Your task to perform on an android device: turn off sleep mode Image 0: 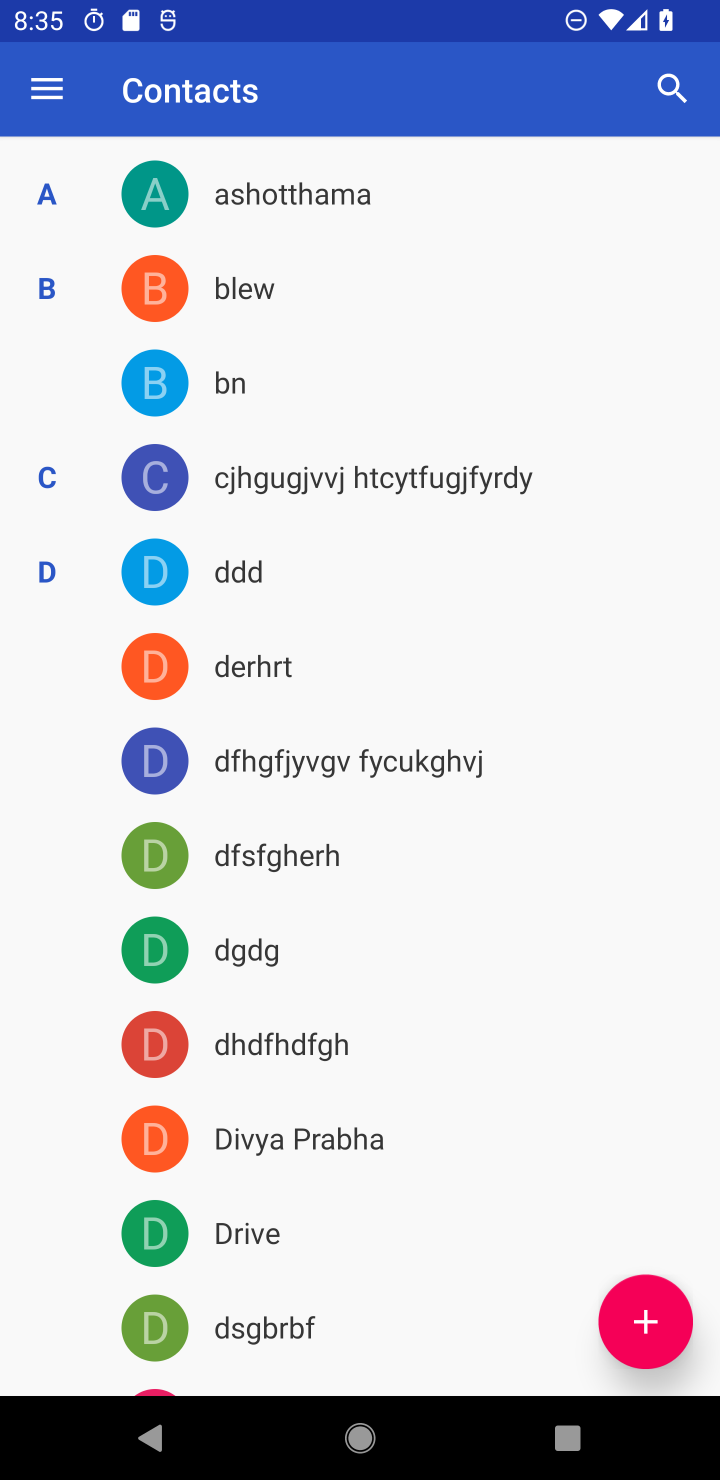
Step 0: press home button
Your task to perform on an android device: turn off sleep mode Image 1: 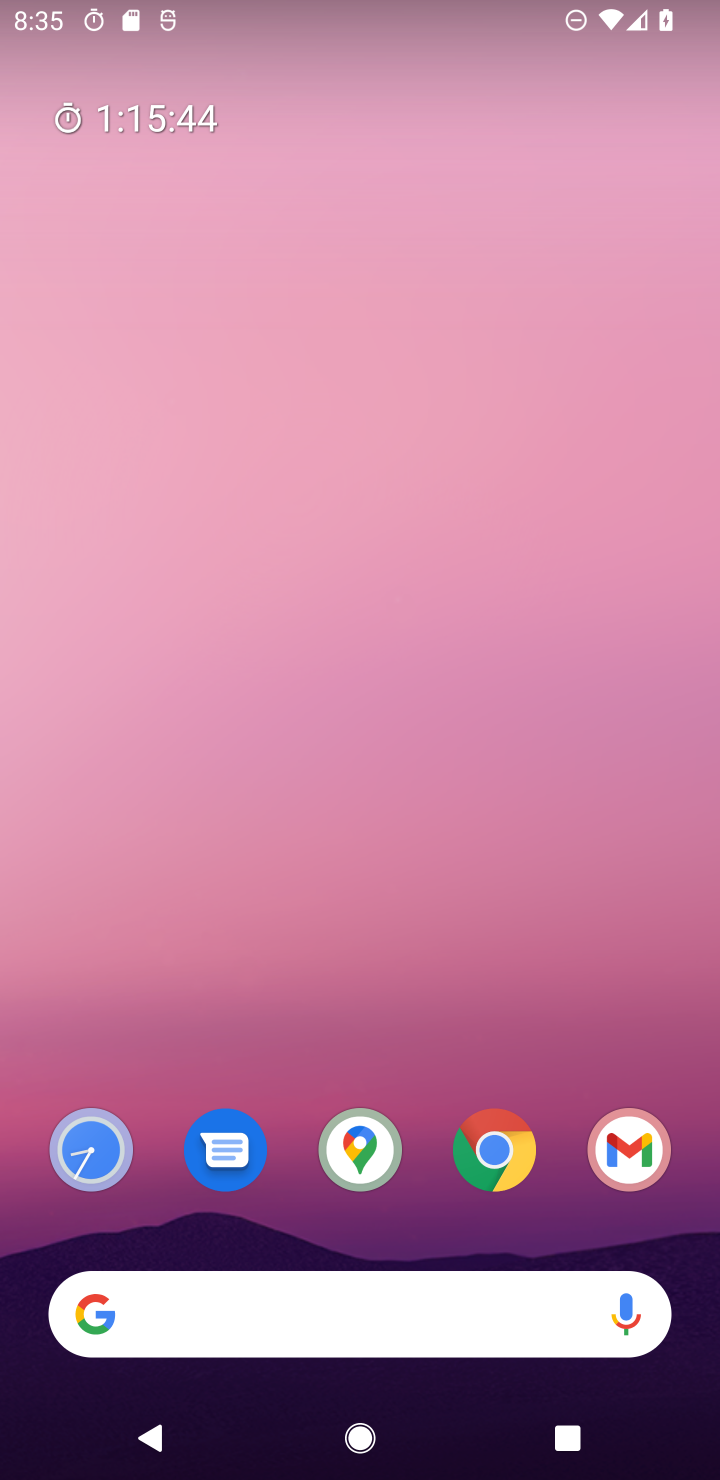
Step 1: drag from (374, 541) to (406, 20)
Your task to perform on an android device: turn off sleep mode Image 2: 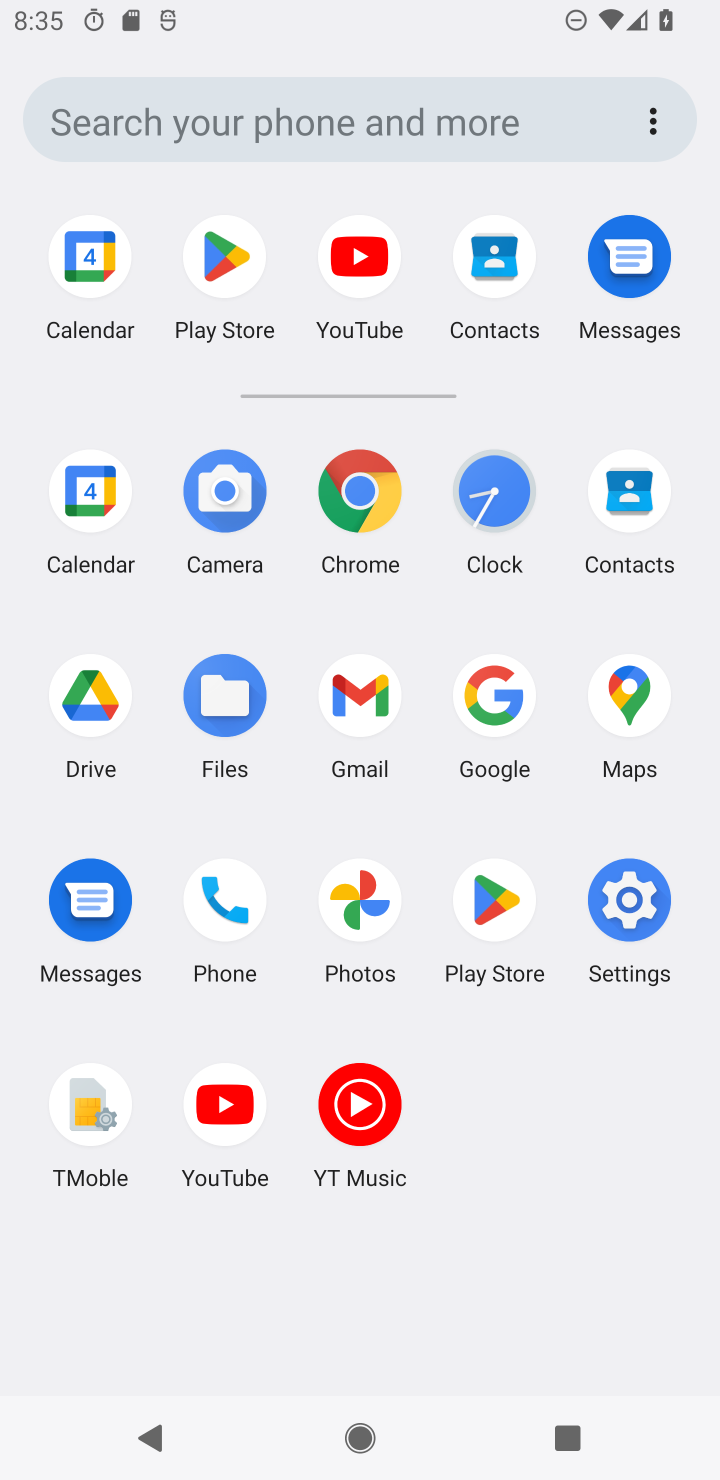
Step 2: click (625, 907)
Your task to perform on an android device: turn off sleep mode Image 3: 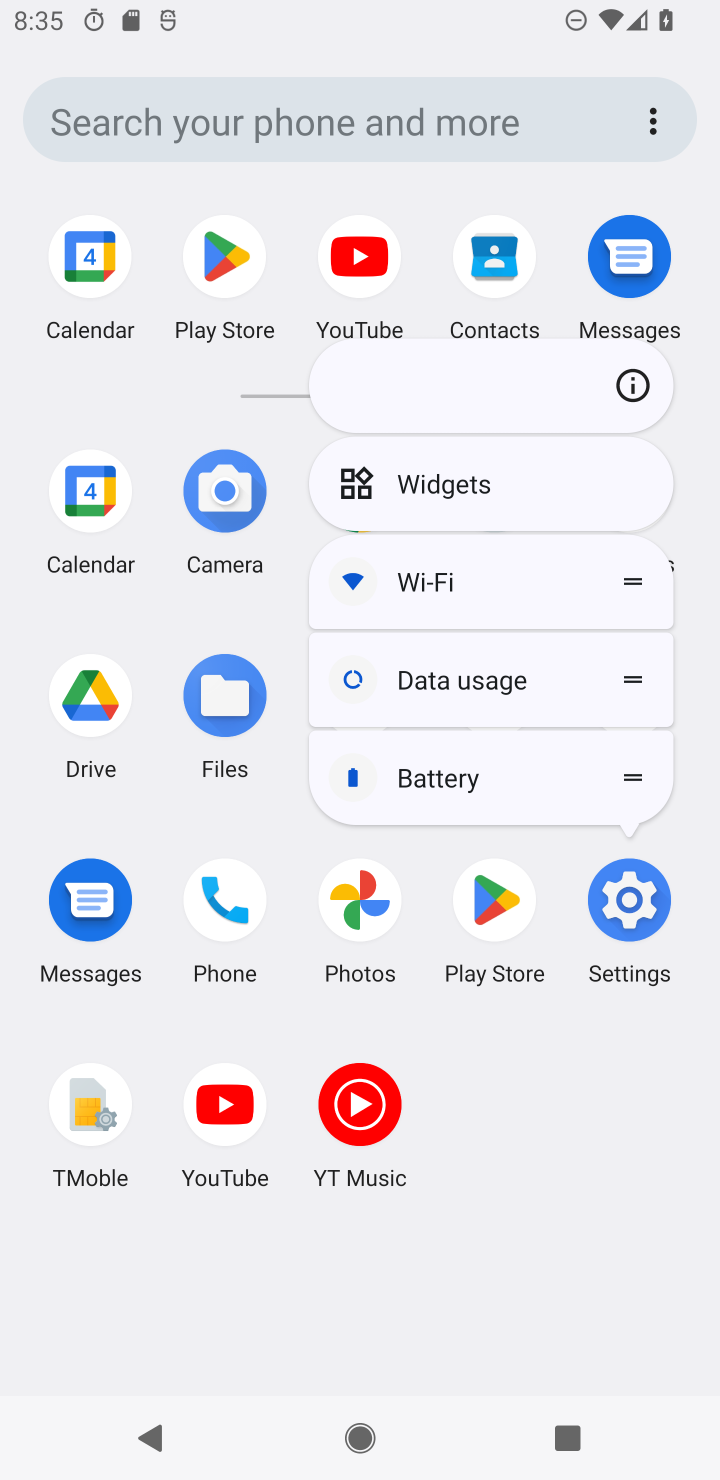
Step 3: click (625, 907)
Your task to perform on an android device: turn off sleep mode Image 4: 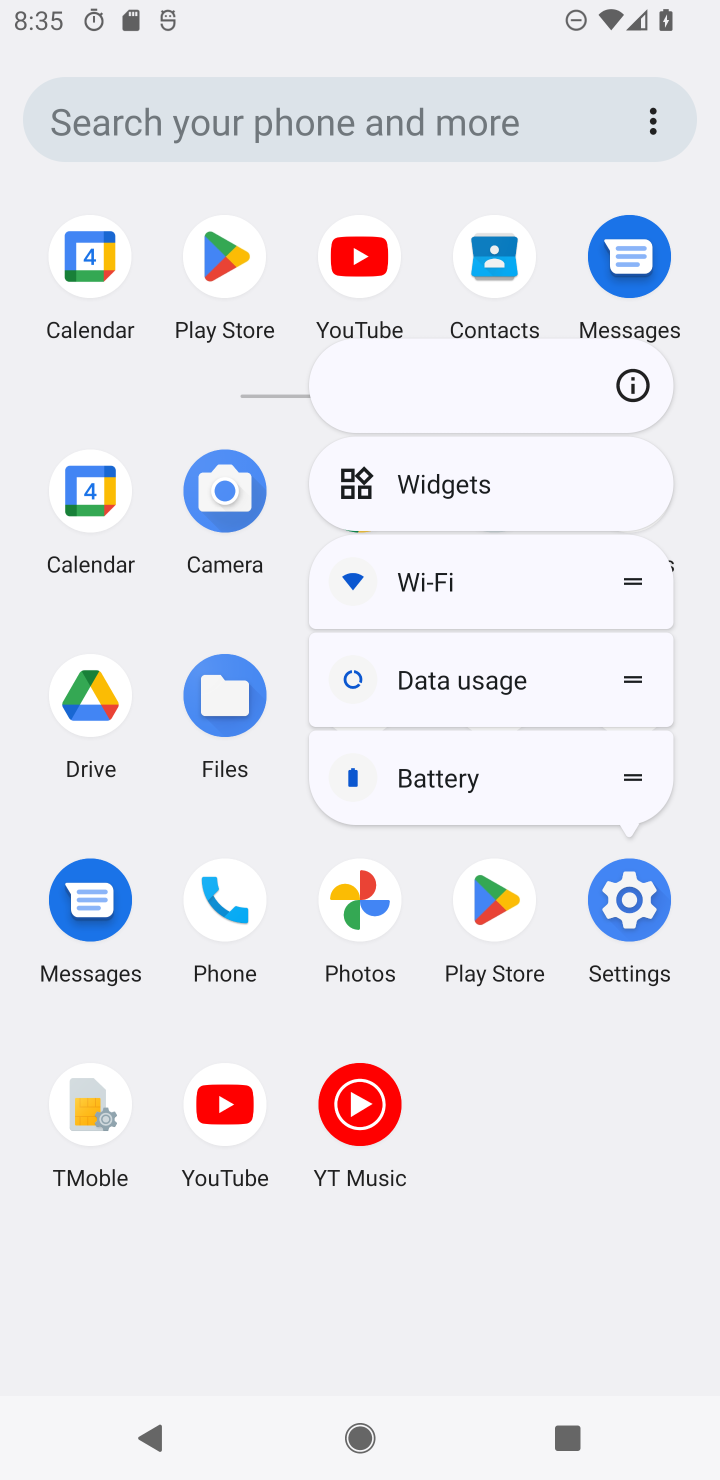
Step 4: click (656, 922)
Your task to perform on an android device: turn off sleep mode Image 5: 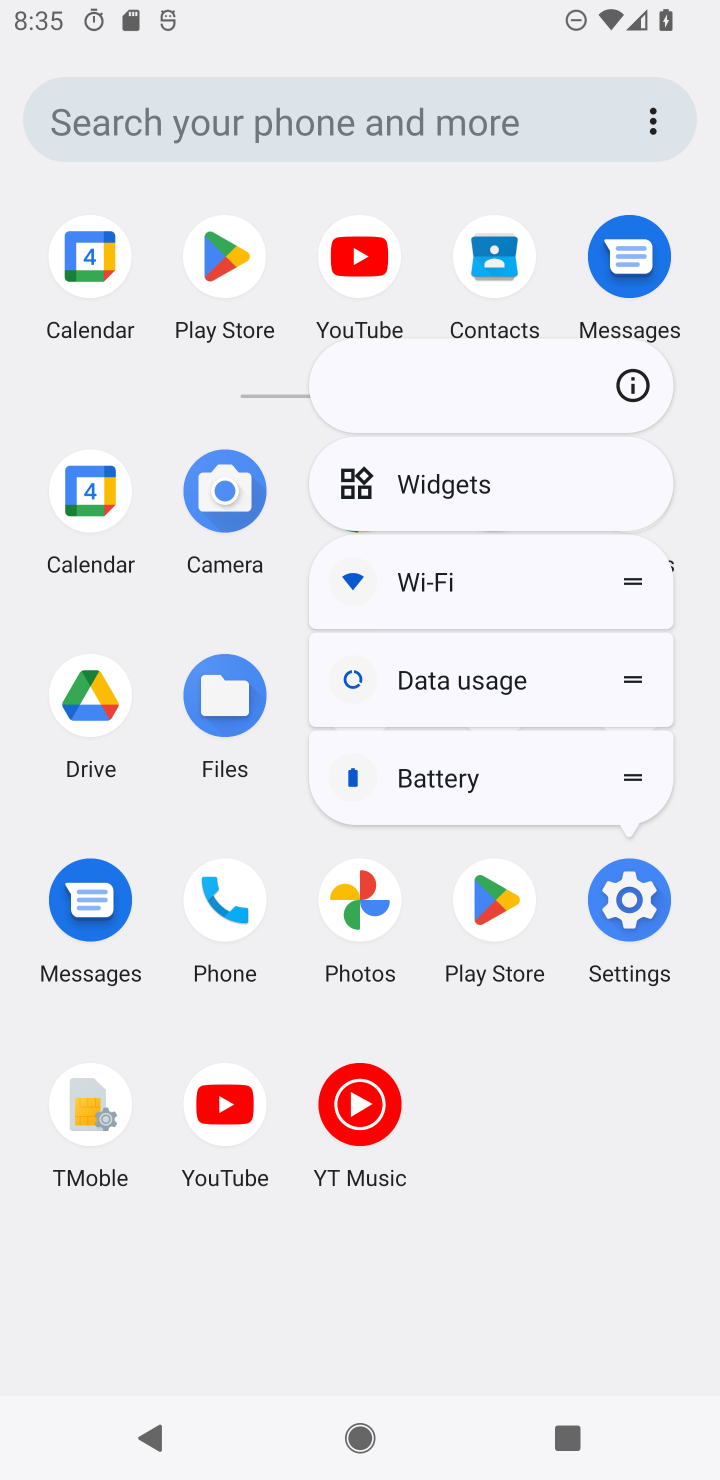
Step 5: click (627, 901)
Your task to perform on an android device: turn off sleep mode Image 6: 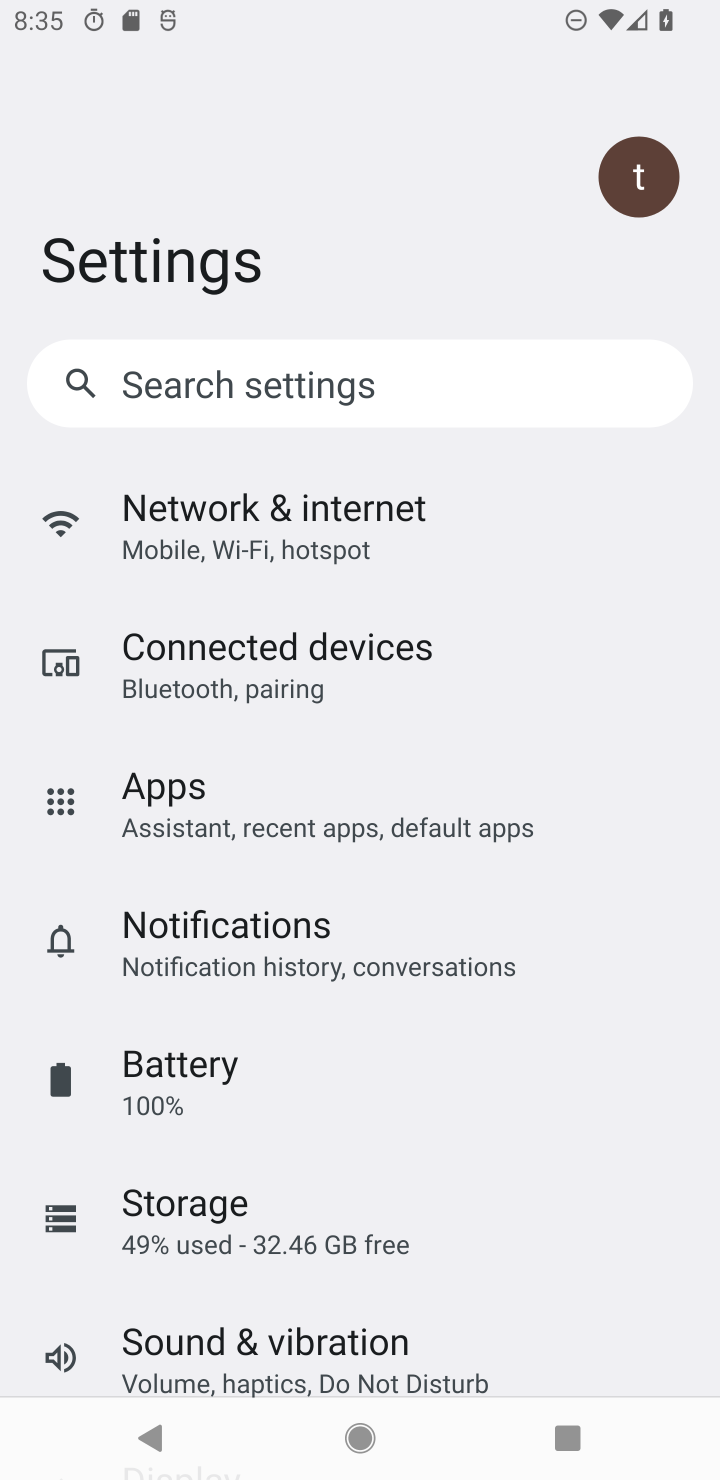
Step 6: task complete